Your task to perform on an android device: allow notifications from all sites in the chrome app Image 0: 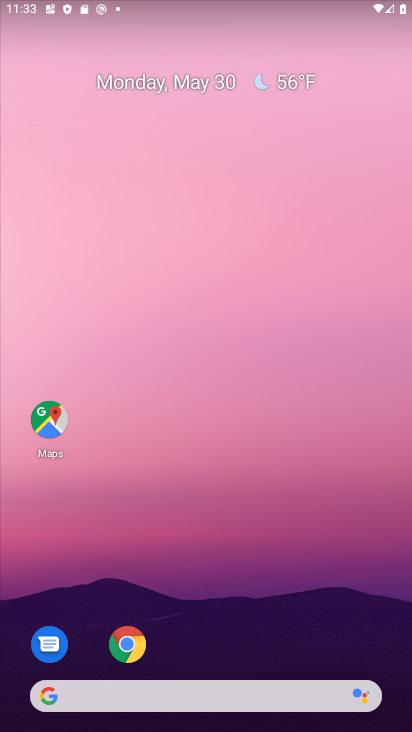
Step 0: click (125, 639)
Your task to perform on an android device: allow notifications from all sites in the chrome app Image 1: 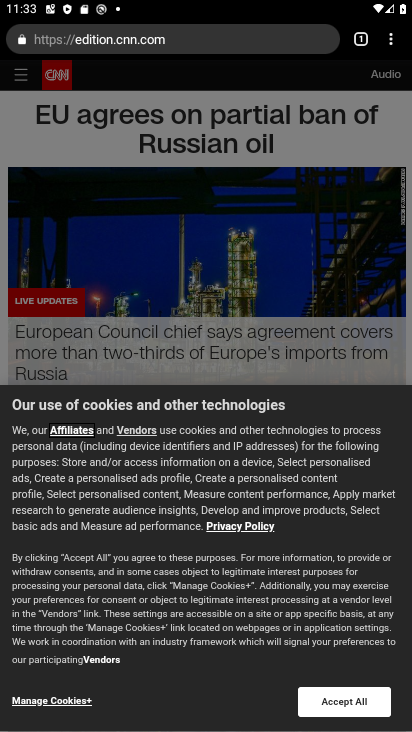
Step 1: click (393, 37)
Your task to perform on an android device: allow notifications from all sites in the chrome app Image 2: 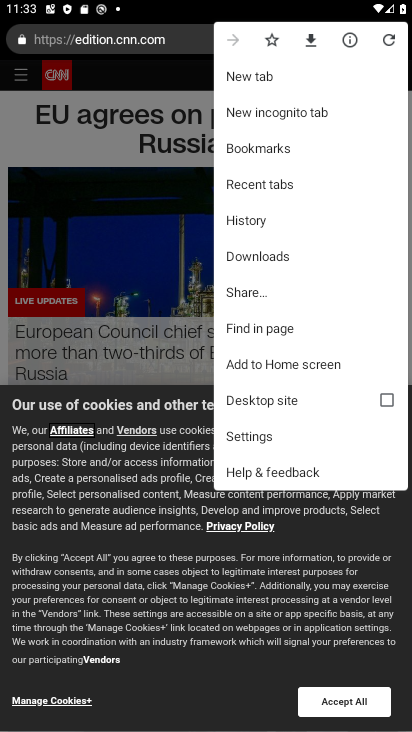
Step 2: click (257, 438)
Your task to perform on an android device: allow notifications from all sites in the chrome app Image 3: 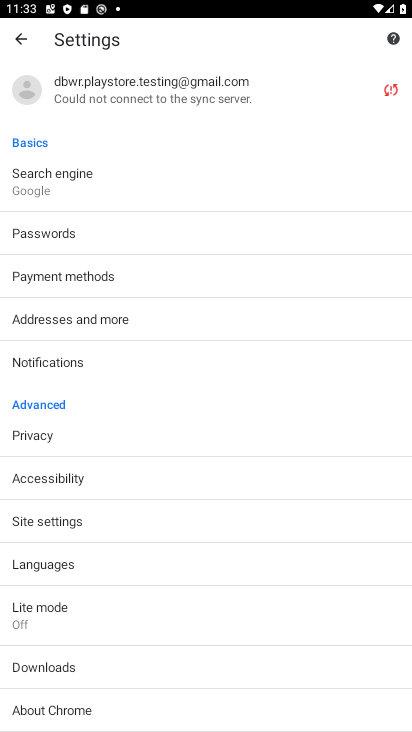
Step 3: click (48, 359)
Your task to perform on an android device: allow notifications from all sites in the chrome app Image 4: 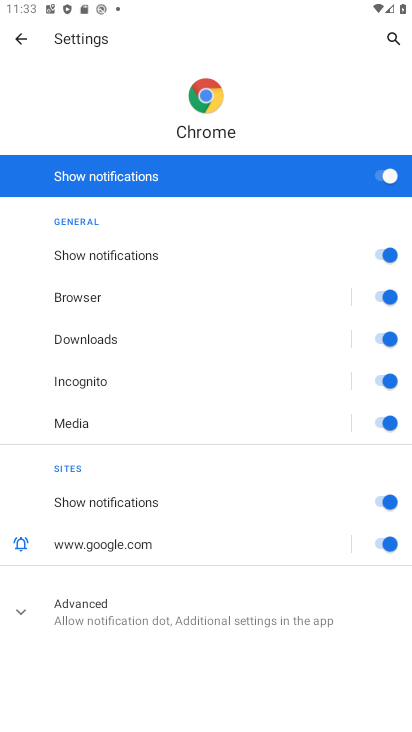
Step 4: task complete